Your task to perform on an android device: allow cookies in the chrome app Image 0: 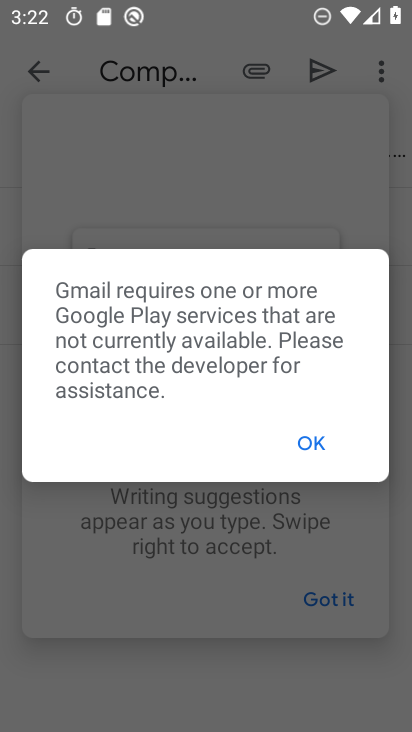
Step 0: press home button
Your task to perform on an android device: allow cookies in the chrome app Image 1: 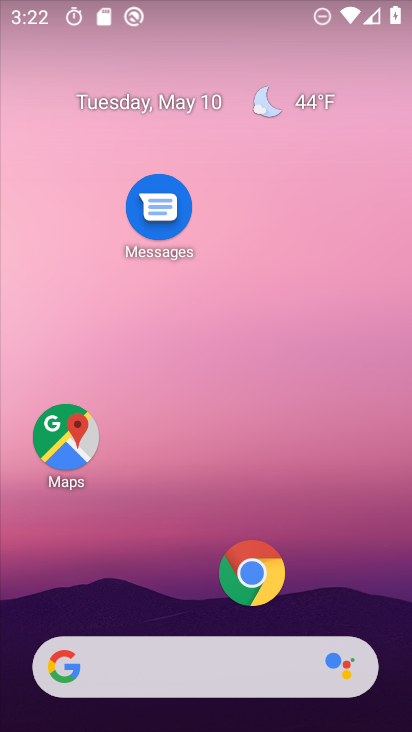
Step 1: click (231, 572)
Your task to perform on an android device: allow cookies in the chrome app Image 2: 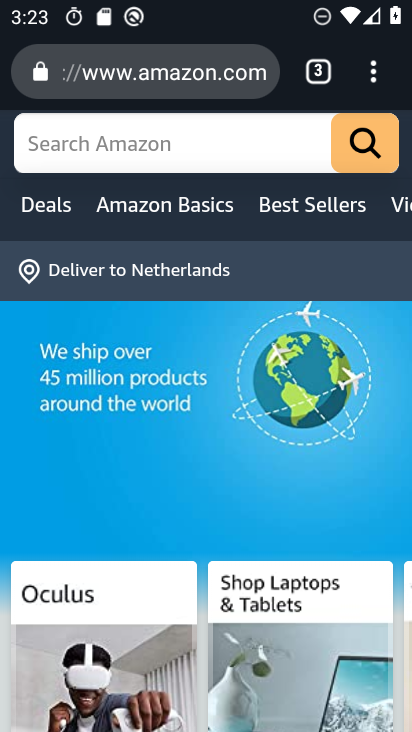
Step 2: click (370, 72)
Your task to perform on an android device: allow cookies in the chrome app Image 3: 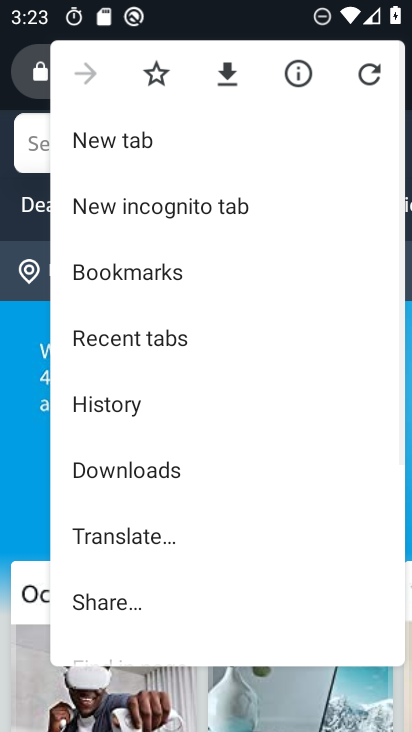
Step 3: drag from (159, 563) to (214, 367)
Your task to perform on an android device: allow cookies in the chrome app Image 4: 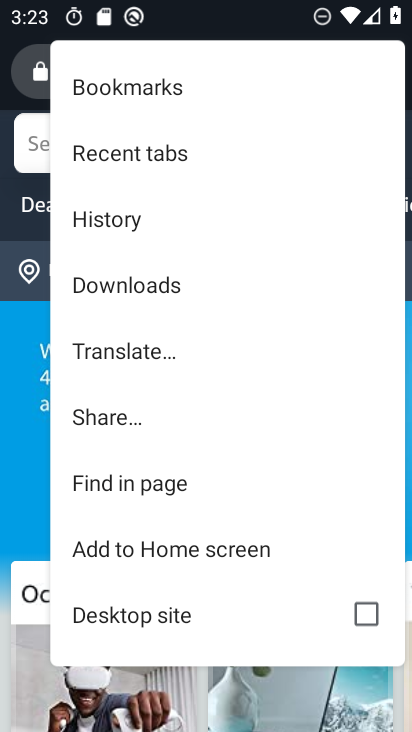
Step 4: drag from (173, 456) to (256, 224)
Your task to perform on an android device: allow cookies in the chrome app Image 5: 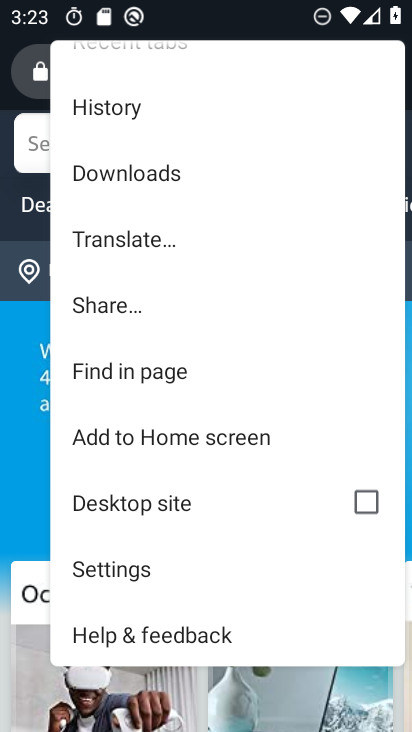
Step 5: click (109, 553)
Your task to perform on an android device: allow cookies in the chrome app Image 6: 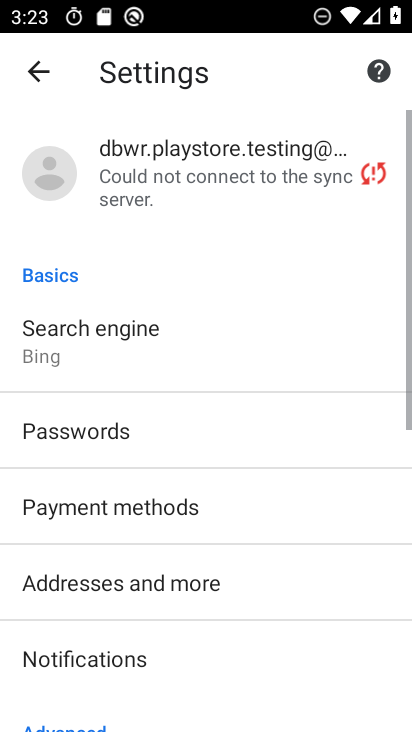
Step 6: drag from (162, 665) to (235, 458)
Your task to perform on an android device: allow cookies in the chrome app Image 7: 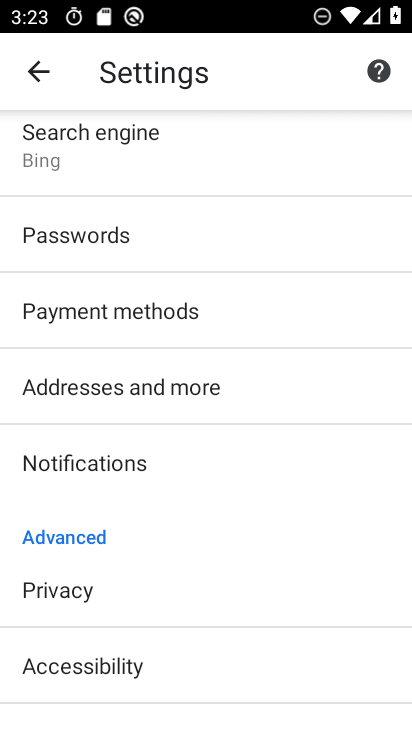
Step 7: drag from (151, 618) to (227, 398)
Your task to perform on an android device: allow cookies in the chrome app Image 8: 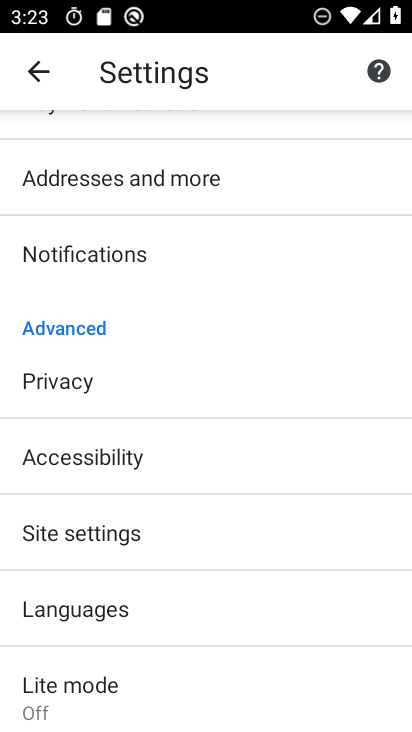
Step 8: click (162, 530)
Your task to perform on an android device: allow cookies in the chrome app Image 9: 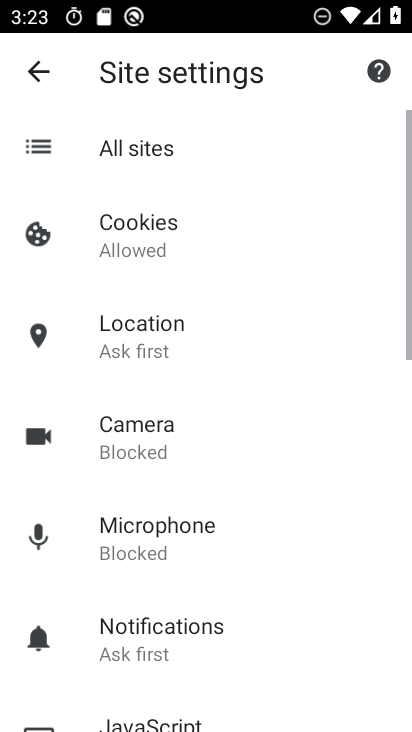
Step 9: click (201, 245)
Your task to perform on an android device: allow cookies in the chrome app Image 10: 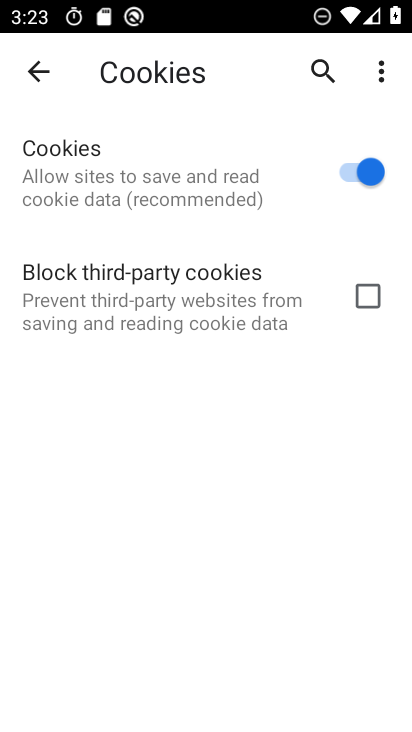
Step 10: task complete